Your task to perform on an android device: Is it going to rain today? Image 0: 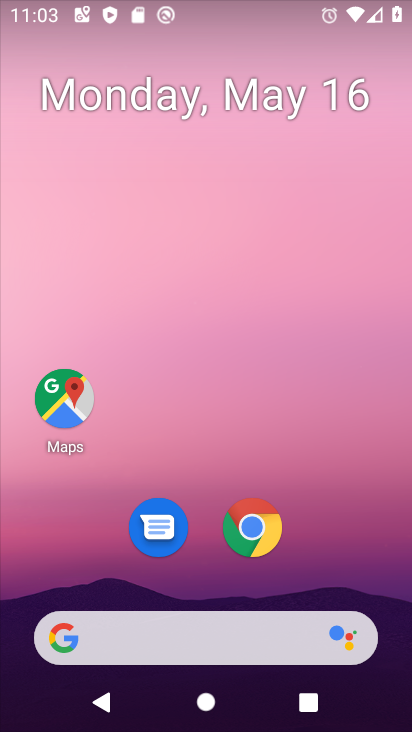
Step 0: click (116, 634)
Your task to perform on an android device: Is it going to rain today? Image 1: 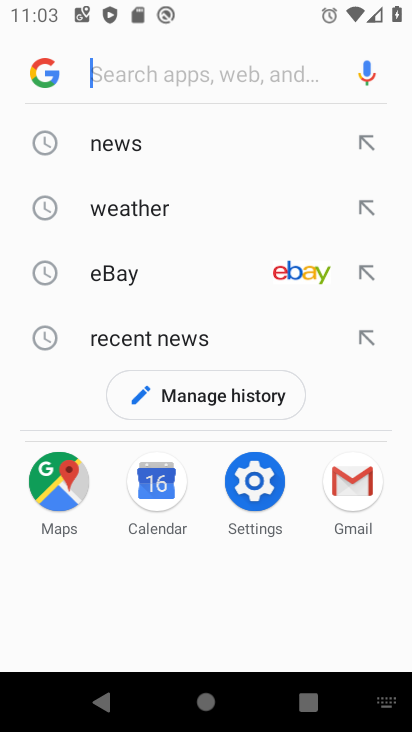
Step 1: click (105, 210)
Your task to perform on an android device: Is it going to rain today? Image 2: 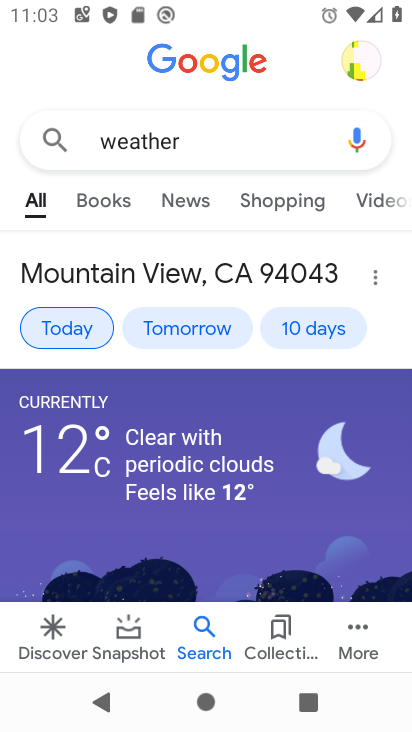
Step 2: task complete